Your task to perform on an android device: Go to location settings Image 0: 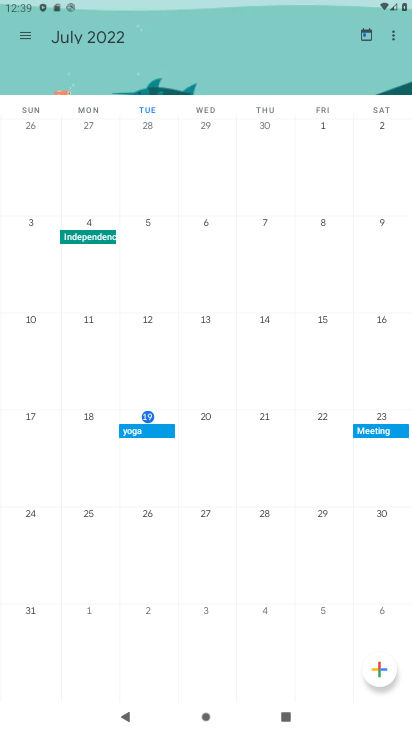
Step 0: press home button
Your task to perform on an android device: Go to location settings Image 1: 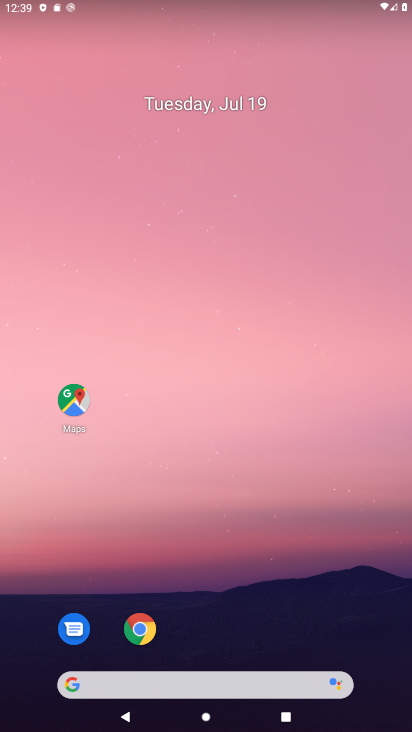
Step 1: drag from (246, 631) to (225, 87)
Your task to perform on an android device: Go to location settings Image 2: 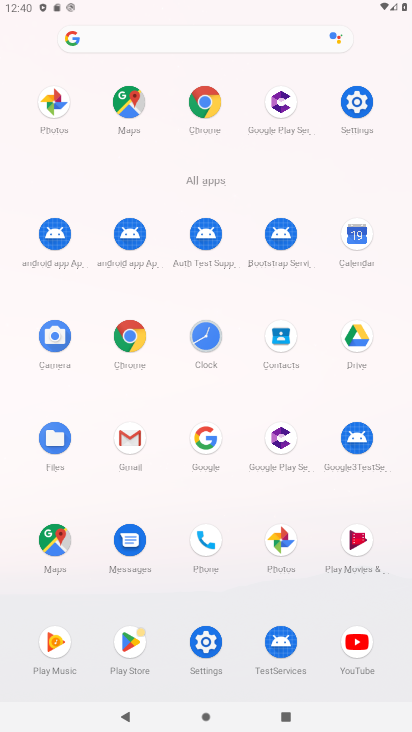
Step 2: click (358, 96)
Your task to perform on an android device: Go to location settings Image 3: 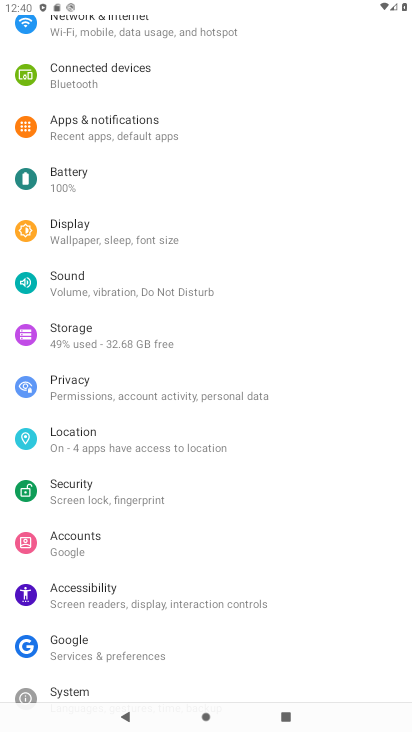
Step 3: click (113, 443)
Your task to perform on an android device: Go to location settings Image 4: 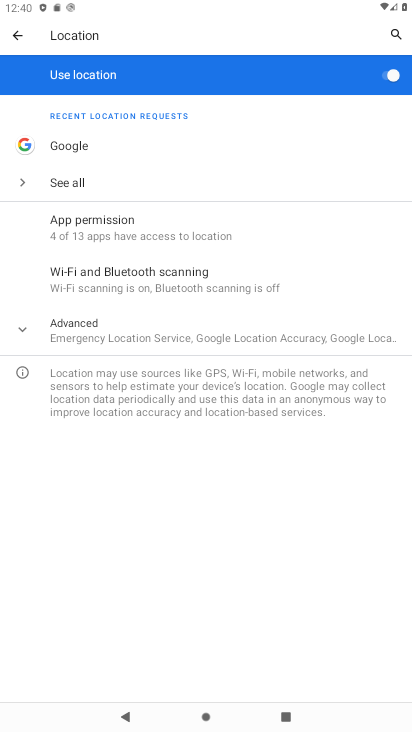
Step 4: task complete